Your task to perform on an android device: turn off wifi Image 0: 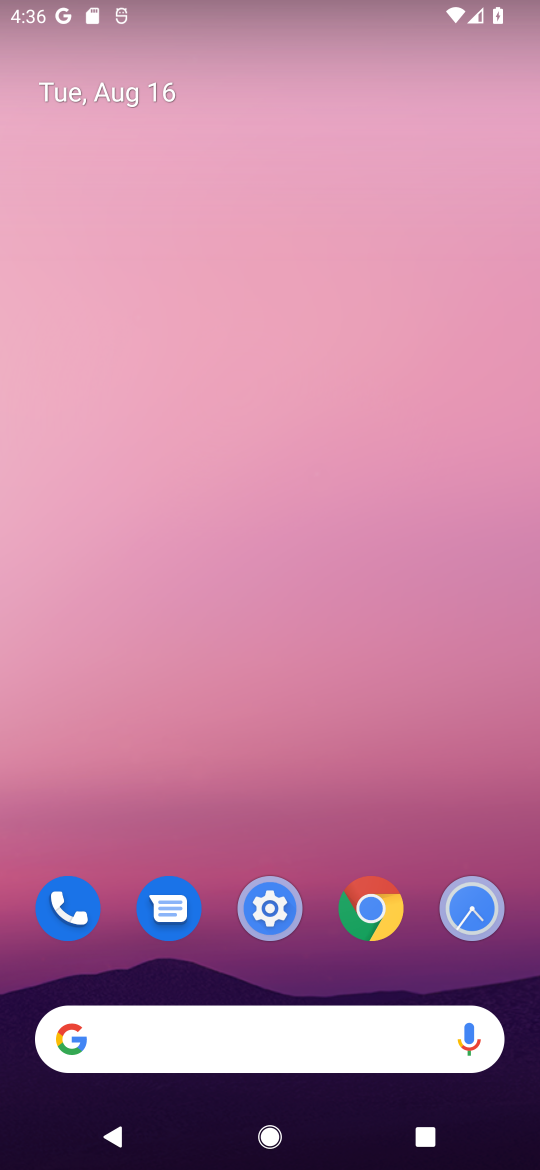
Step 0: drag from (336, 12) to (333, 840)
Your task to perform on an android device: turn off wifi Image 1: 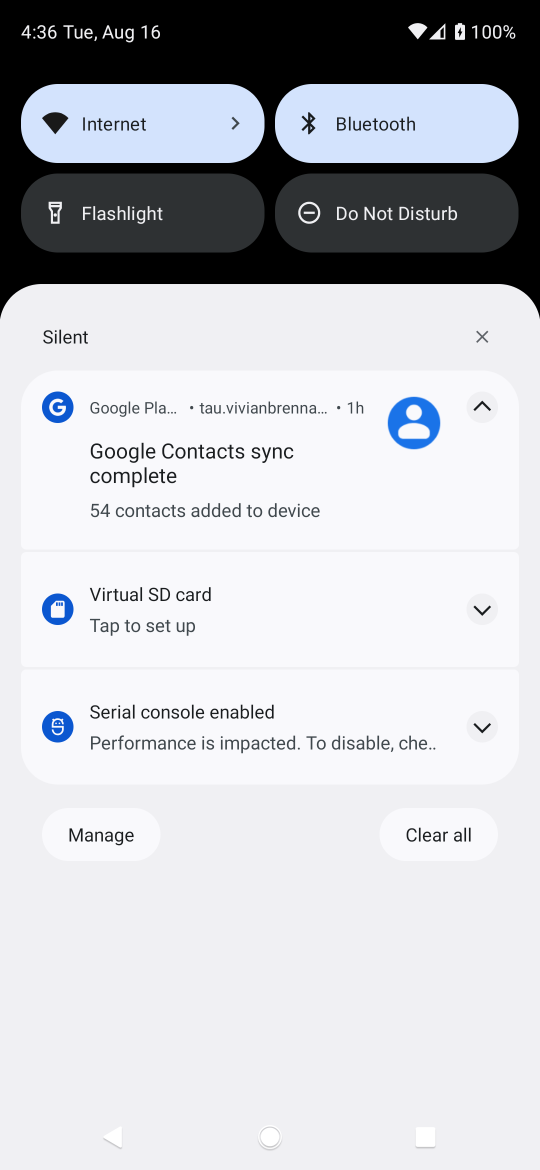
Step 1: click (134, 124)
Your task to perform on an android device: turn off wifi Image 2: 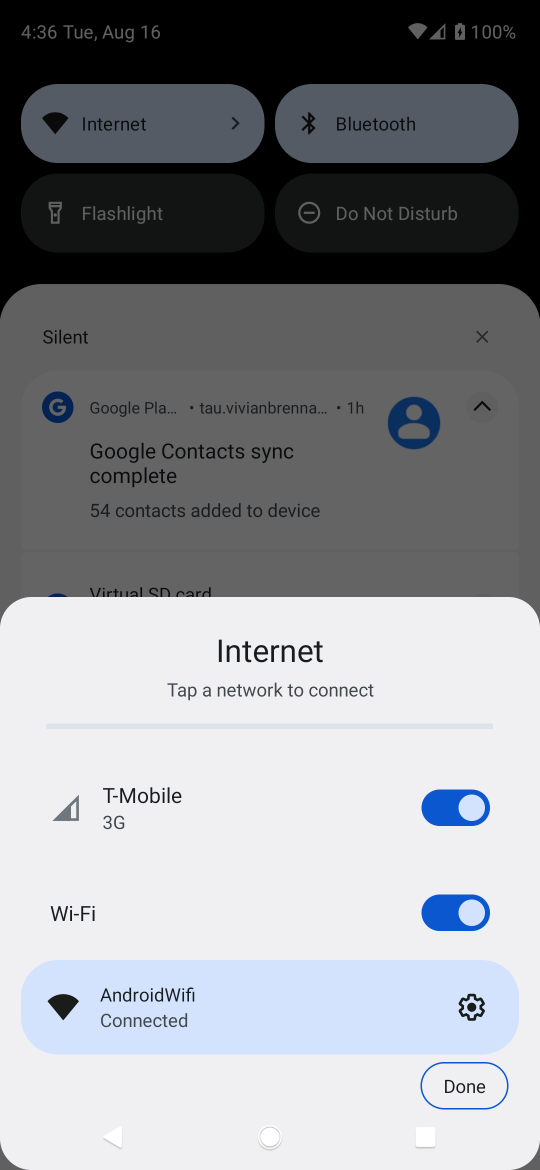
Step 2: click (461, 914)
Your task to perform on an android device: turn off wifi Image 3: 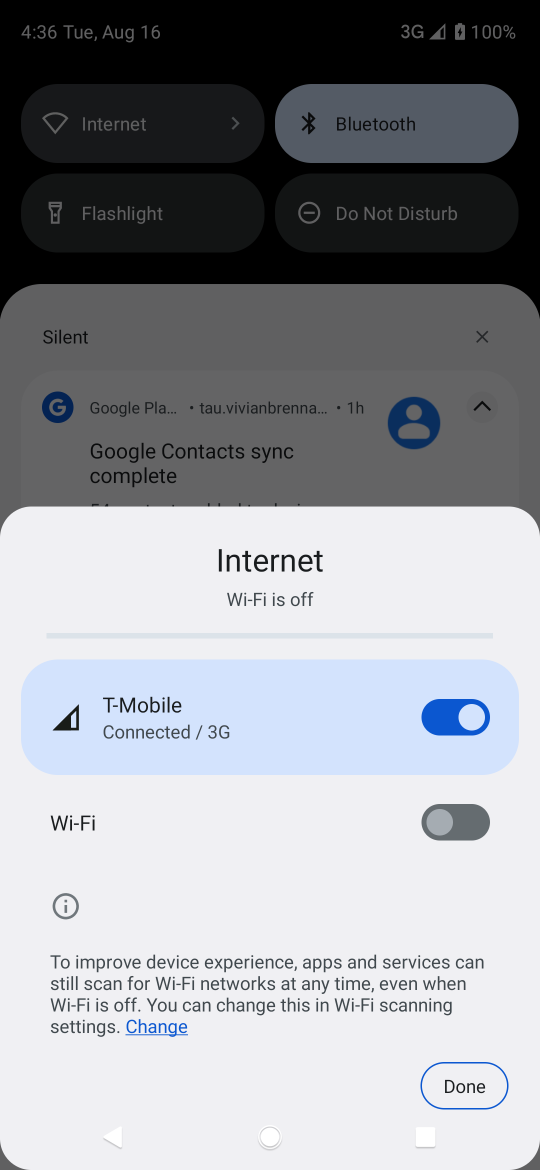
Step 3: task complete